Your task to perform on an android device: What's on my calendar today? Image 0: 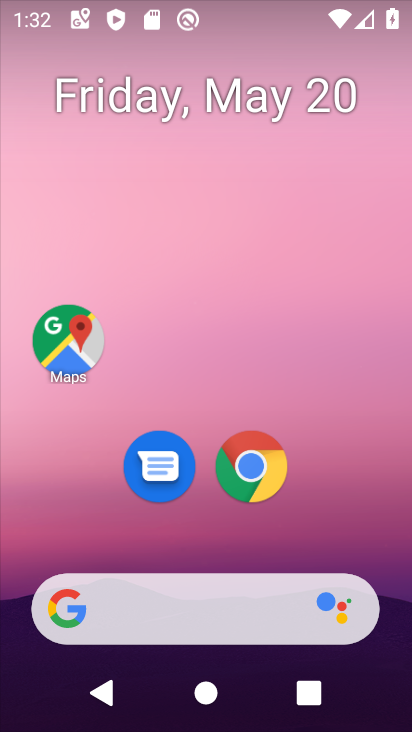
Step 0: drag from (213, 551) to (190, 17)
Your task to perform on an android device: What's on my calendar today? Image 1: 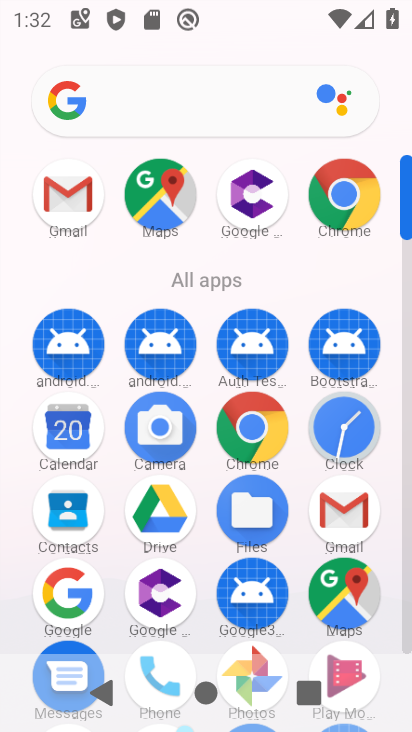
Step 1: click (57, 438)
Your task to perform on an android device: What's on my calendar today? Image 2: 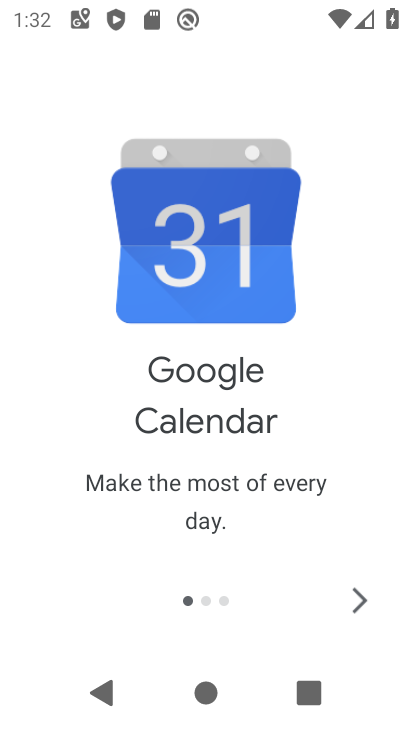
Step 2: click (364, 602)
Your task to perform on an android device: What's on my calendar today? Image 3: 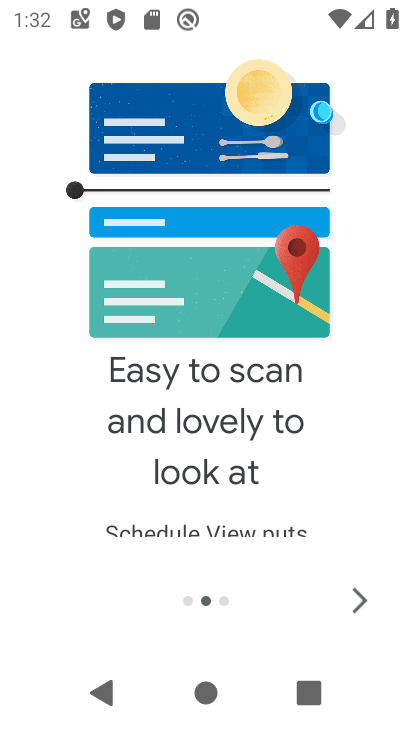
Step 3: click (364, 602)
Your task to perform on an android device: What's on my calendar today? Image 4: 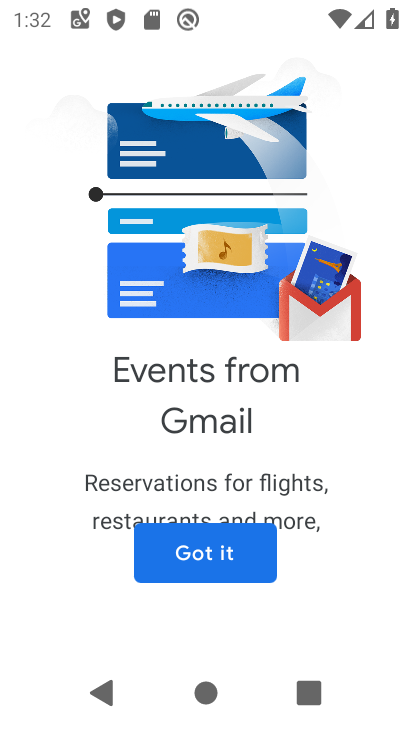
Step 4: click (230, 534)
Your task to perform on an android device: What's on my calendar today? Image 5: 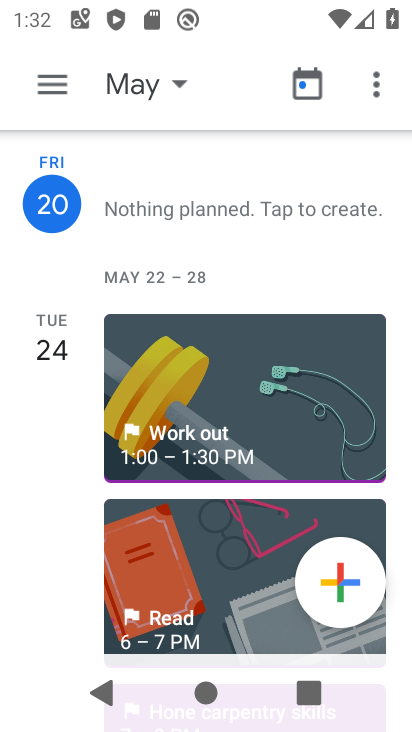
Step 5: click (60, 210)
Your task to perform on an android device: What's on my calendar today? Image 6: 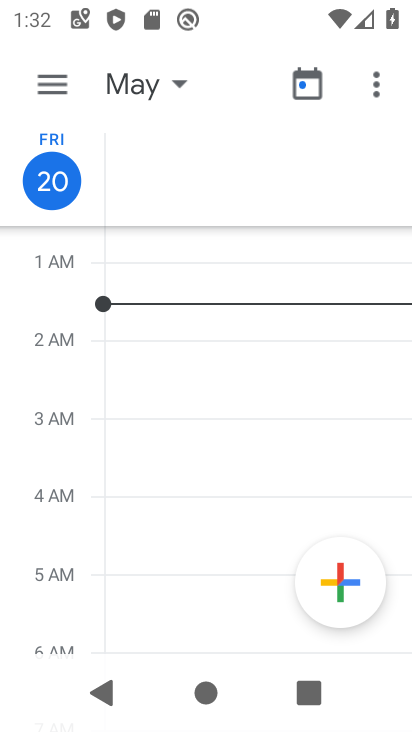
Step 6: task complete